Your task to perform on an android device: What's the weather going to be this weekend? Image 0: 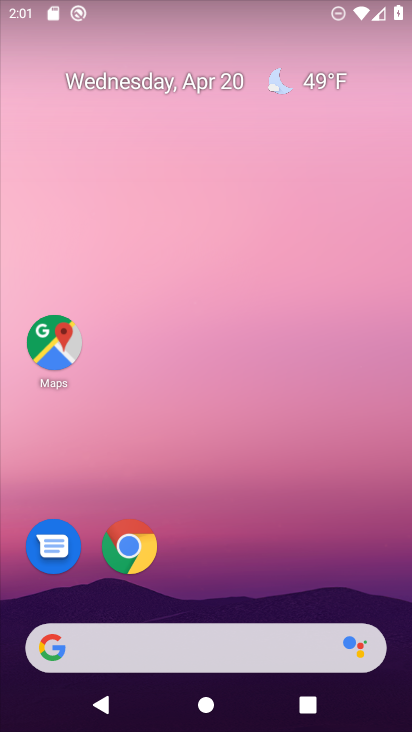
Step 0: click (181, 639)
Your task to perform on an android device: What's the weather going to be this weekend? Image 1: 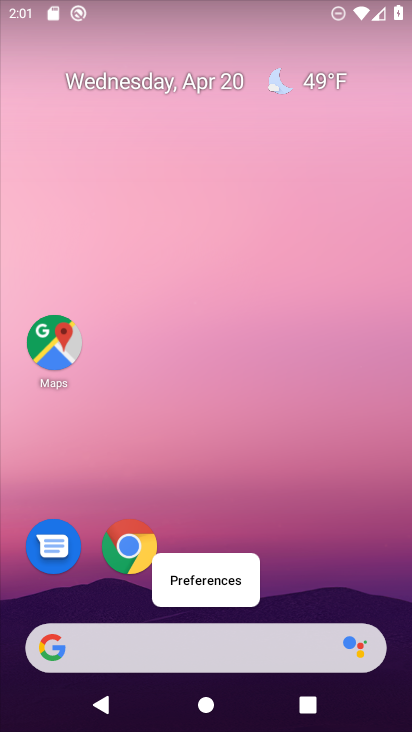
Step 1: click (151, 651)
Your task to perform on an android device: What's the weather going to be this weekend? Image 2: 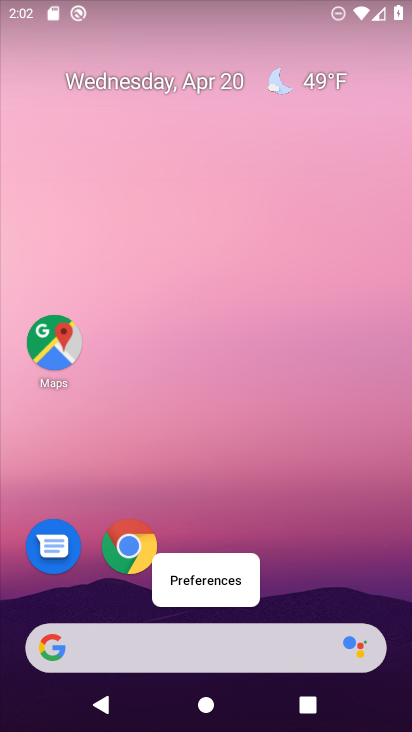
Step 2: click (151, 651)
Your task to perform on an android device: What's the weather going to be this weekend? Image 3: 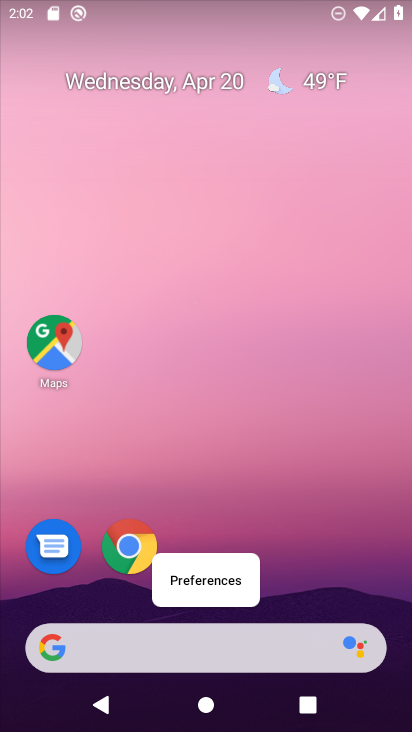
Step 3: click (133, 649)
Your task to perform on an android device: What's the weather going to be this weekend? Image 4: 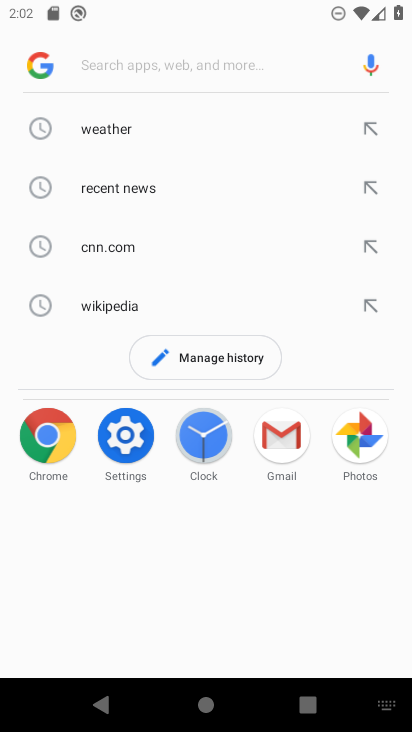
Step 4: click (114, 127)
Your task to perform on an android device: What's the weather going to be this weekend? Image 5: 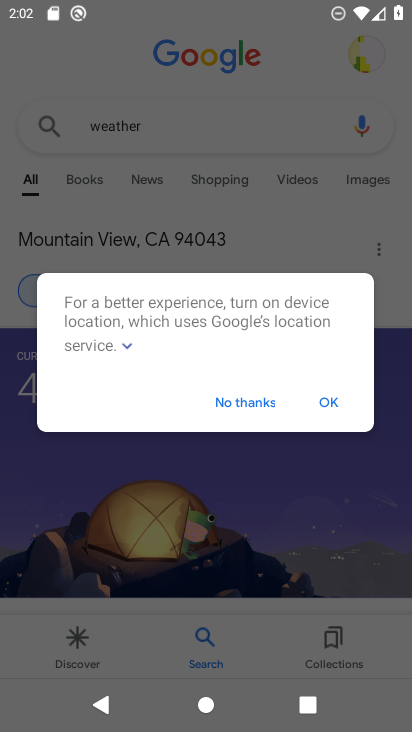
Step 5: click (322, 403)
Your task to perform on an android device: What's the weather going to be this weekend? Image 6: 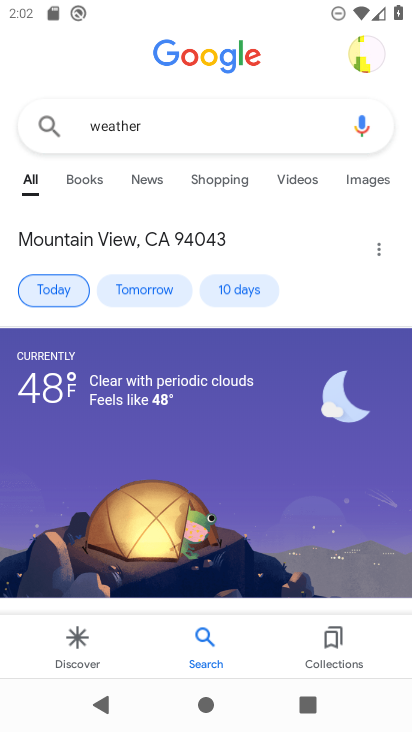
Step 6: click (240, 279)
Your task to perform on an android device: What's the weather going to be this weekend? Image 7: 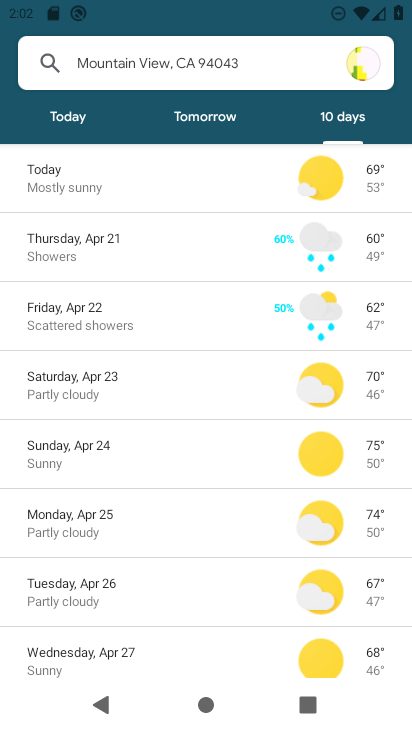
Step 7: drag from (214, 595) to (311, 180)
Your task to perform on an android device: What's the weather going to be this weekend? Image 8: 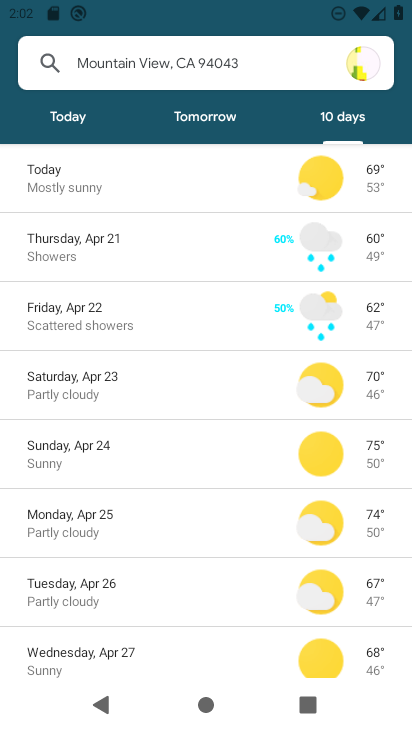
Step 8: drag from (205, 536) to (234, 120)
Your task to perform on an android device: What's the weather going to be this weekend? Image 9: 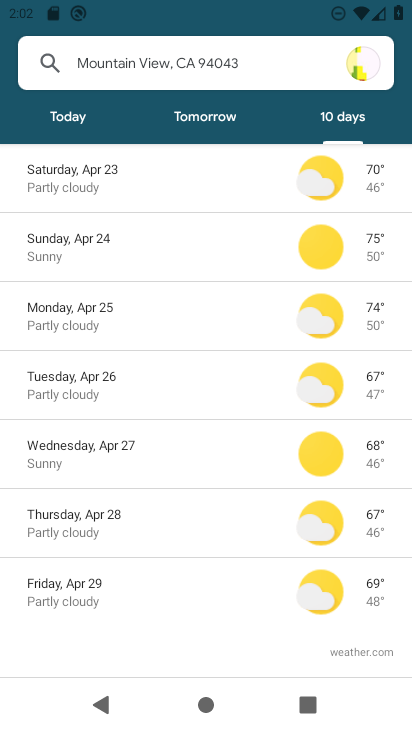
Step 9: click (162, 60)
Your task to perform on an android device: What's the weather going to be this weekend? Image 10: 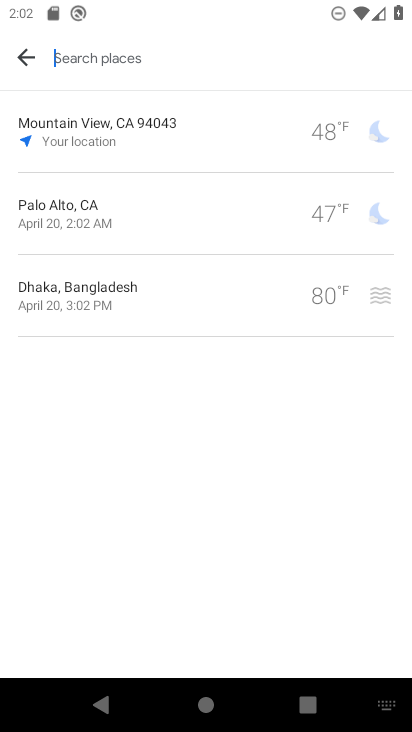
Step 10: type "gurgaoan"
Your task to perform on an android device: What's the weather going to be this weekend? Image 11: 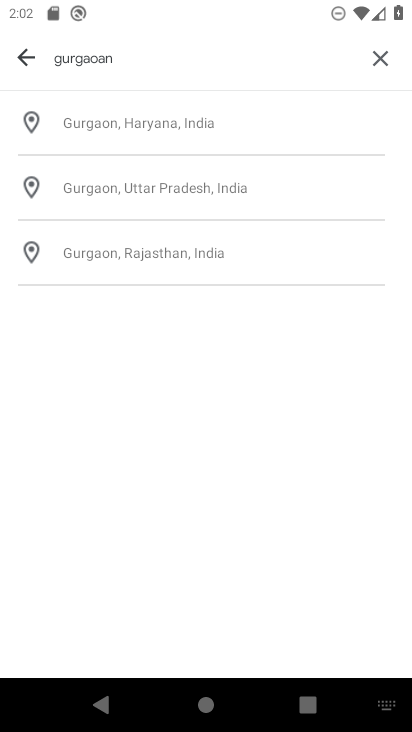
Step 11: click (170, 134)
Your task to perform on an android device: What's the weather going to be this weekend? Image 12: 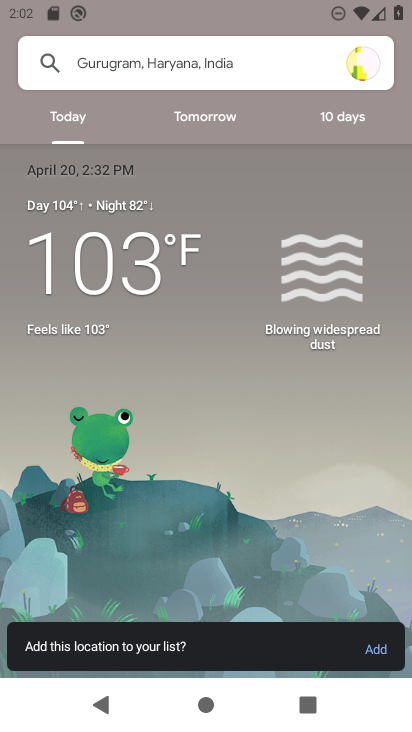
Step 12: click (331, 115)
Your task to perform on an android device: What's the weather going to be this weekend? Image 13: 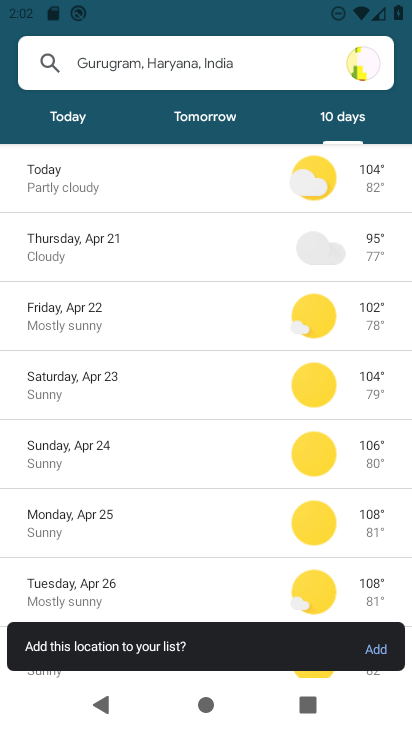
Step 13: task complete